Your task to perform on an android device: snooze an email in the gmail app Image 0: 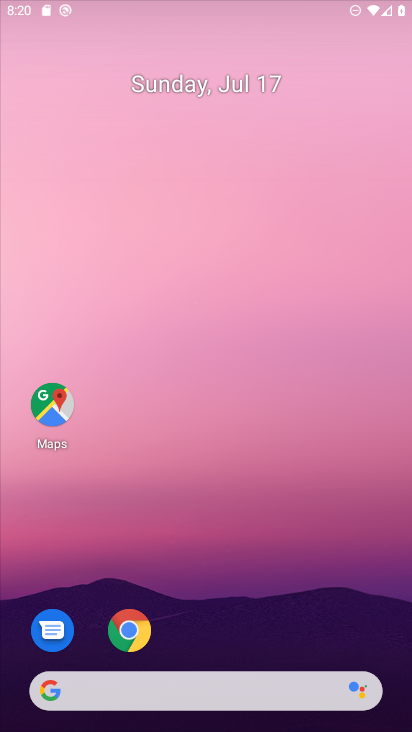
Step 0: drag from (386, 654) to (228, 61)
Your task to perform on an android device: snooze an email in the gmail app Image 1: 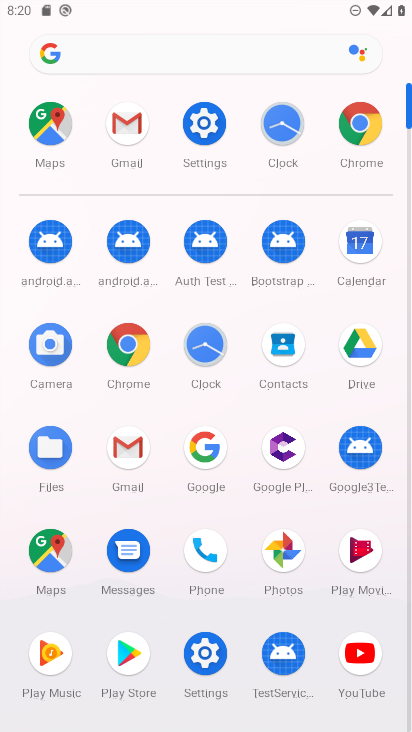
Step 1: click (123, 442)
Your task to perform on an android device: snooze an email in the gmail app Image 2: 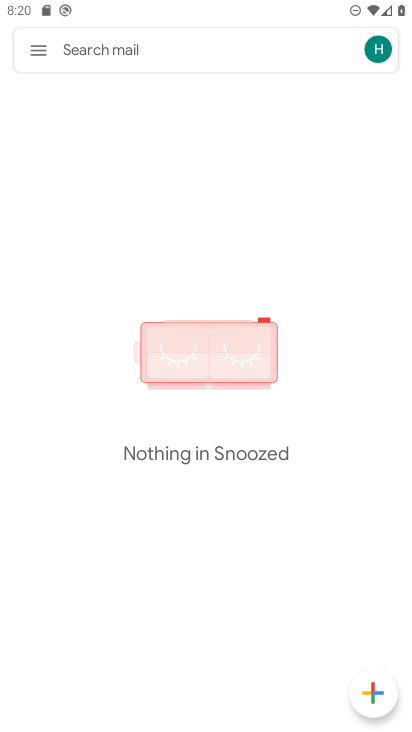
Step 2: click (36, 48)
Your task to perform on an android device: snooze an email in the gmail app Image 3: 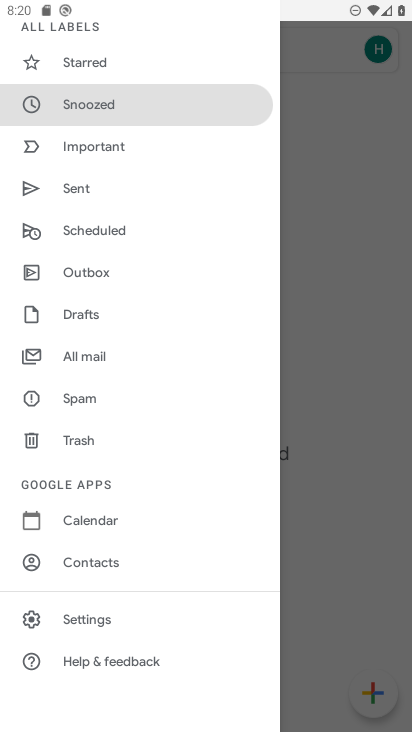
Step 3: task complete